Your task to perform on an android device: change notifications settings Image 0: 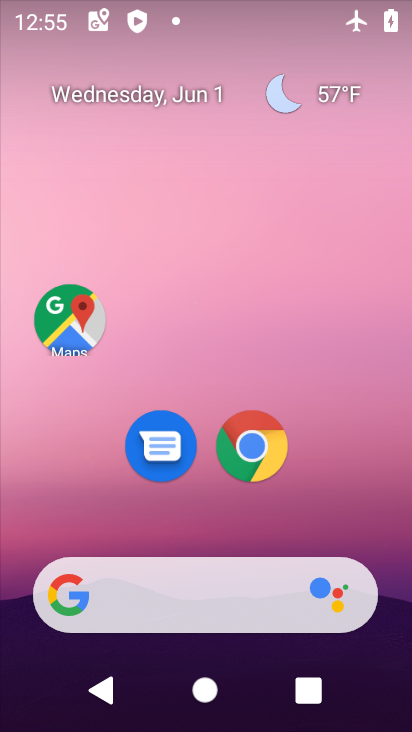
Step 0: drag from (167, 533) to (168, 229)
Your task to perform on an android device: change notifications settings Image 1: 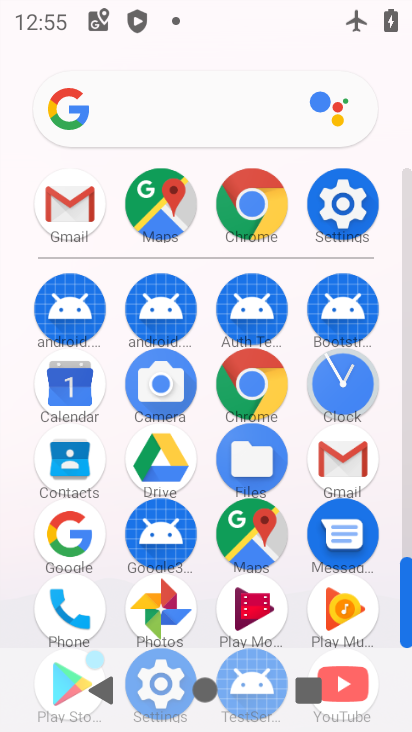
Step 1: drag from (208, 269) to (207, 119)
Your task to perform on an android device: change notifications settings Image 2: 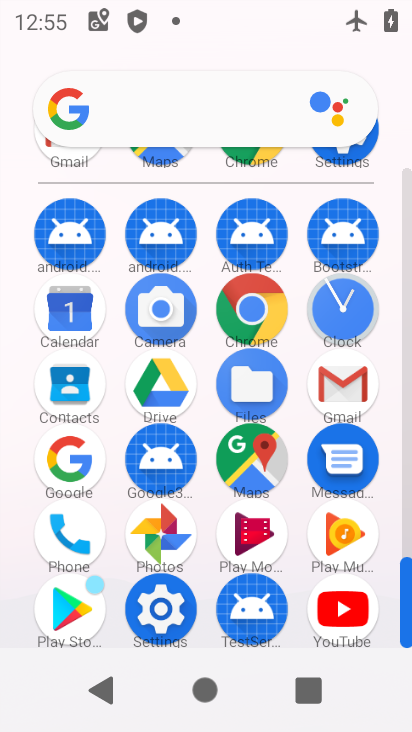
Step 2: click (171, 625)
Your task to perform on an android device: change notifications settings Image 3: 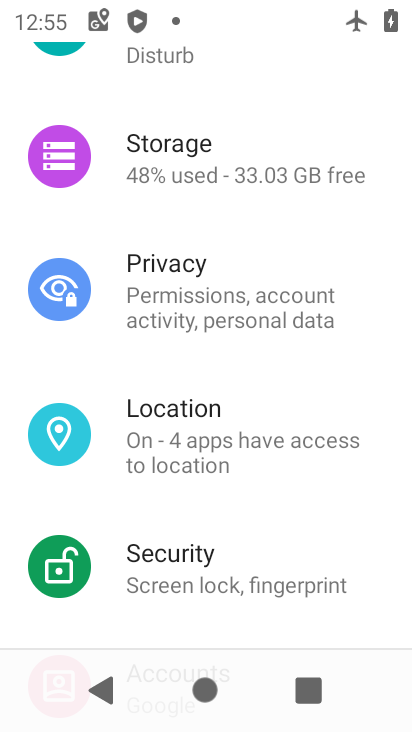
Step 3: drag from (209, 228) to (229, 630)
Your task to perform on an android device: change notifications settings Image 4: 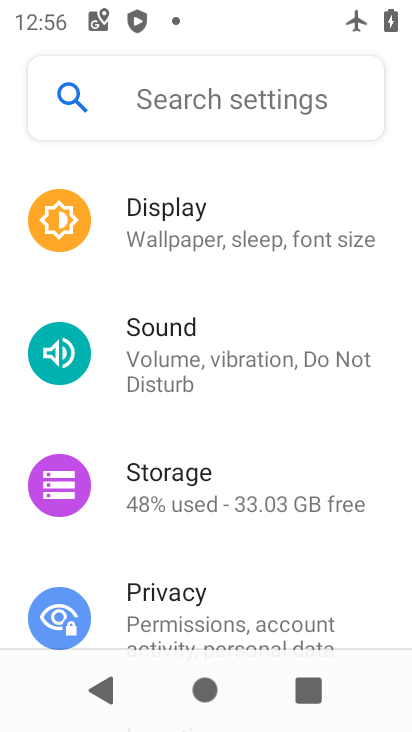
Step 4: drag from (190, 283) to (216, 611)
Your task to perform on an android device: change notifications settings Image 5: 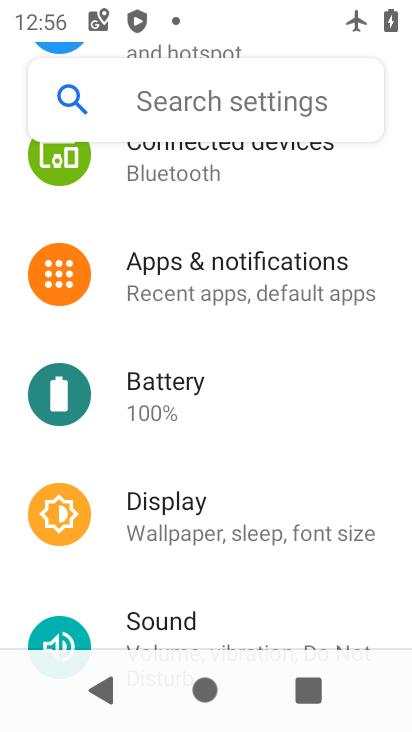
Step 5: click (204, 287)
Your task to perform on an android device: change notifications settings Image 6: 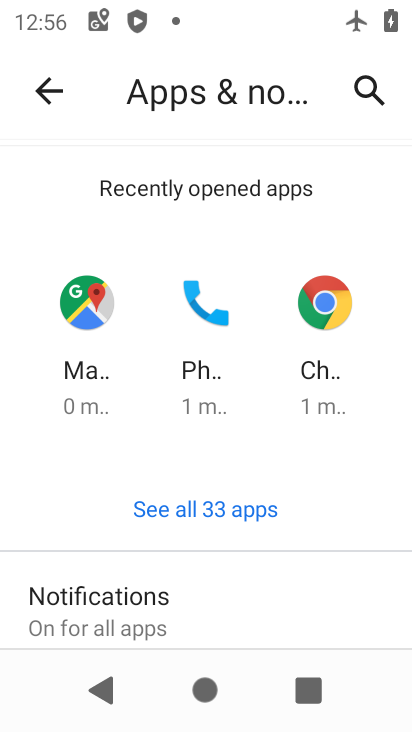
Step 6: drag from (214, 610) to (182, 379)
Your task to perform on an android device: change notifications settings Image 7: 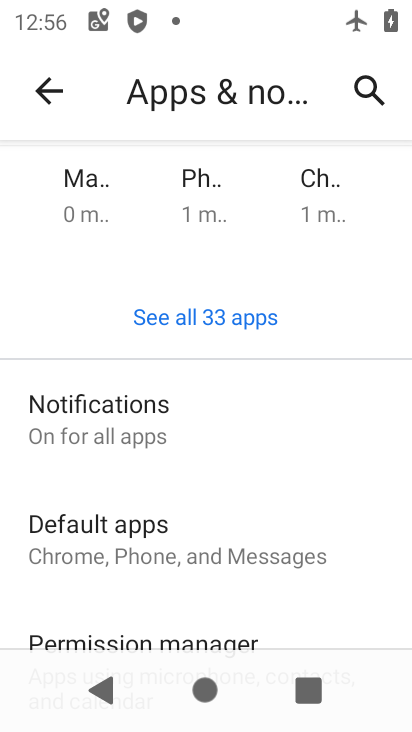
Step 7: drag from (218, 371) to (261, 683)
Your task to perform on an android device: change notifications settings Image 8: 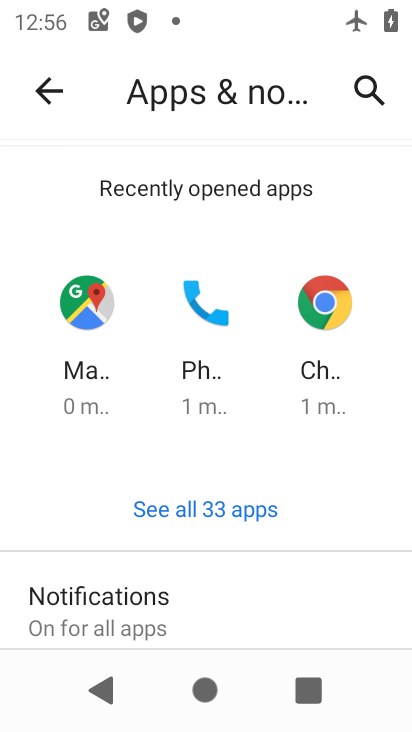
Step 8: drag from (236, 620) to (207, 435)
Your task to perform on an android device: change notifications settings Image 9: 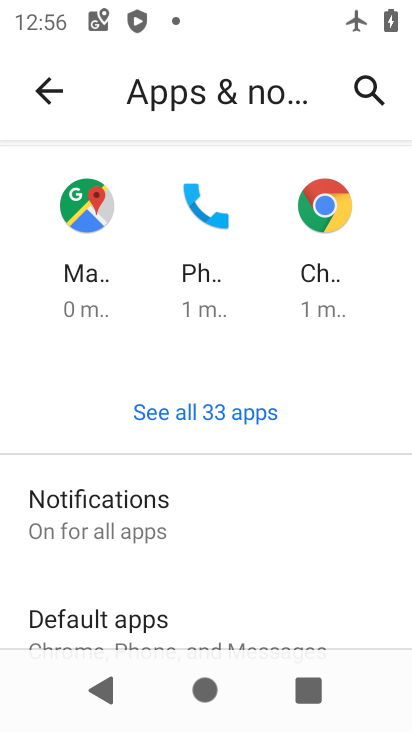
Step 9: click (120, 495)
Your task to perform on an android device: change notifications settings Image 10: 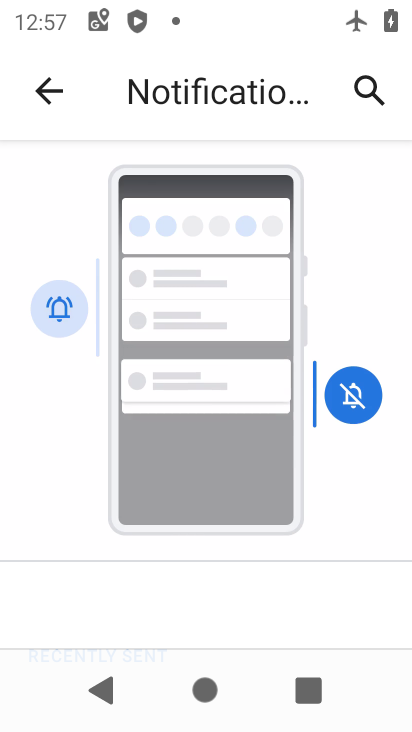
Step 10: task complete